Your task to perform on an android device: remove spam from my inbox in the gmail app Image 0: 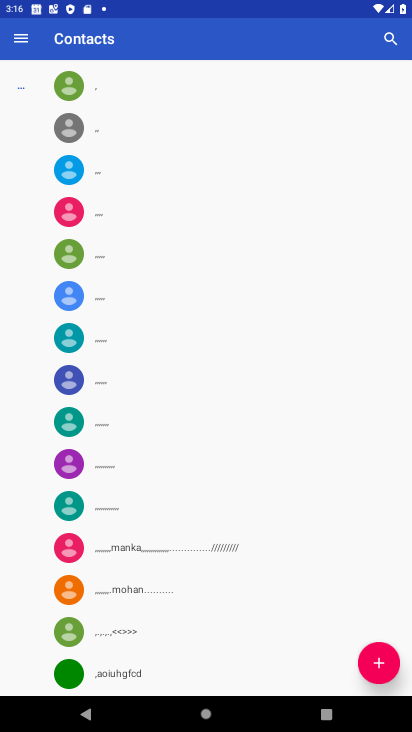
Step 0: press home button
Your task to perform on an android device: remove spam from my inbox in the gmail app Image 1: 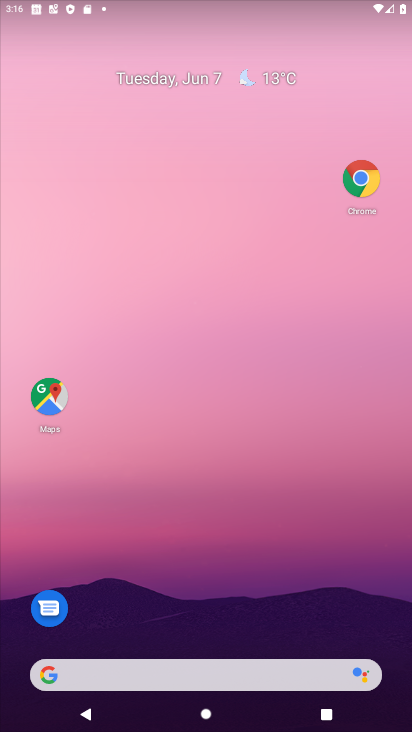
Step 1: drag from (170, 650) to (269, 142)
Your task to perform on an android device: remove spam from my inbox in the gmail app Image 2: 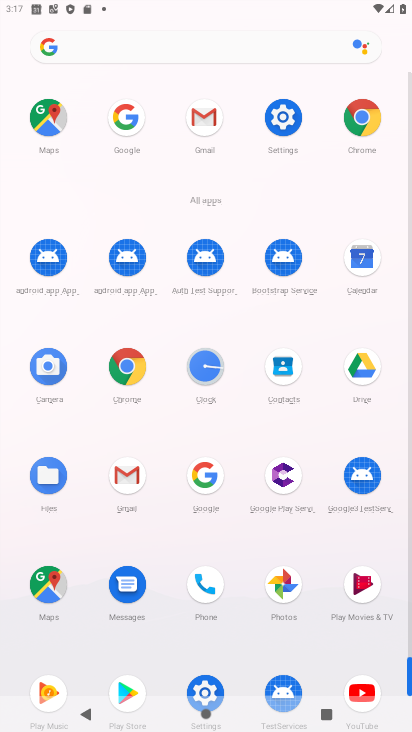
Step 2: click (124, 482)
Your task to perform on an android device: remove spam from my inbox in the gmail app Image 3: 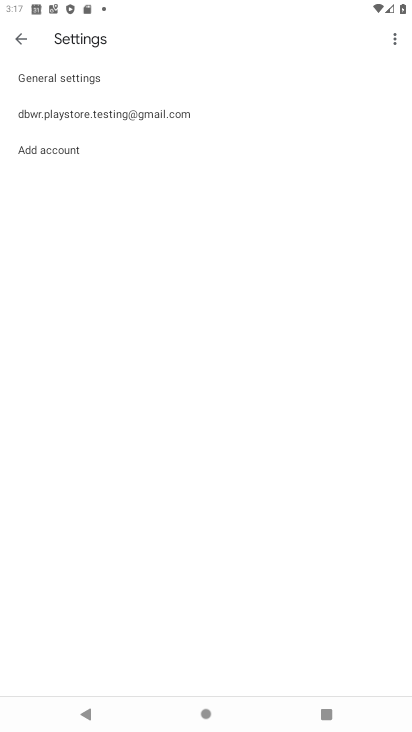
Step 3: click (30, 44)
Your task to perform on an android device: remove spam from my inbox in the gmail app Image 4: 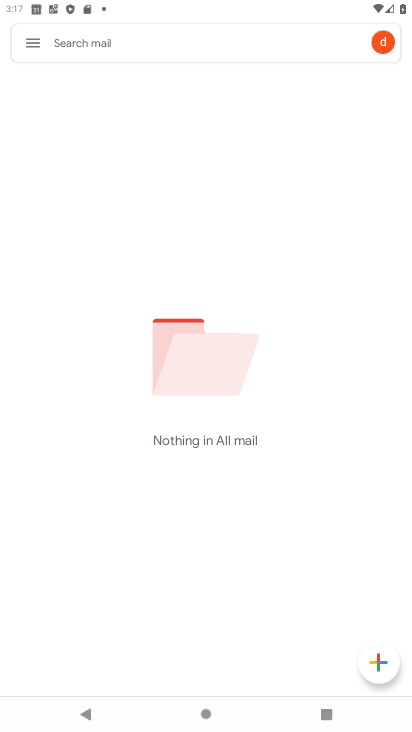
Step 4: click (31, 45)
Your task to perform on an android device: remove spam from my inbox in the gmail app Image 5: 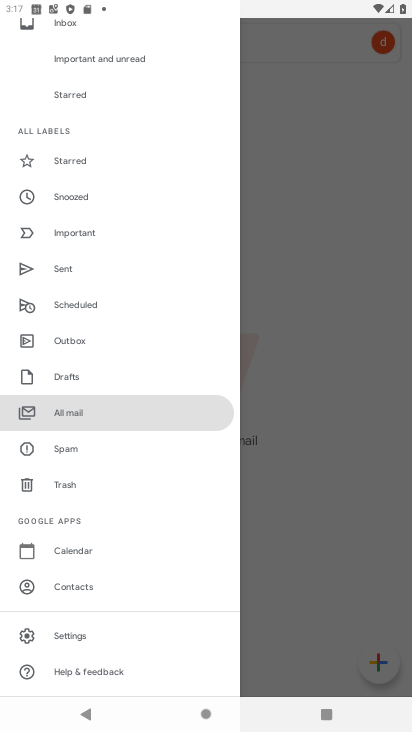
Step 5: click (89, 456)
Your task to perform on an android device: remove spam from my inbox in the gmail app Image 6: 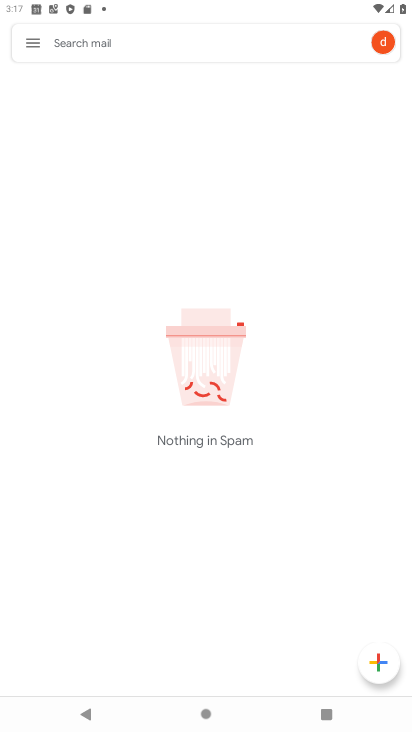
Step 6: task complete